Your task to perform on an android device: Open internet settings Image 0: 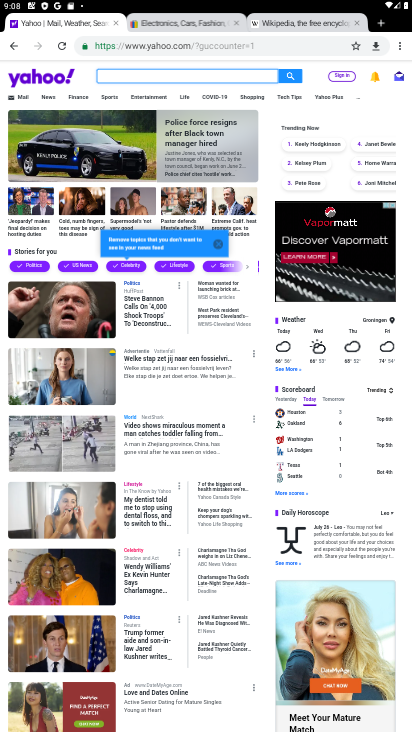
Step 0: press home button
Your task to perform on an android device: Open internet settings Image 1: 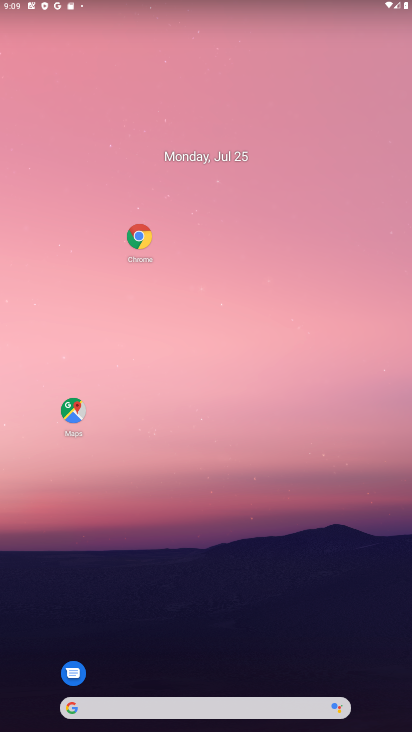
Step 1: drag from (291, 681) to (324, 105)
Your task to perform on an android device: Open internet settings Image 2: 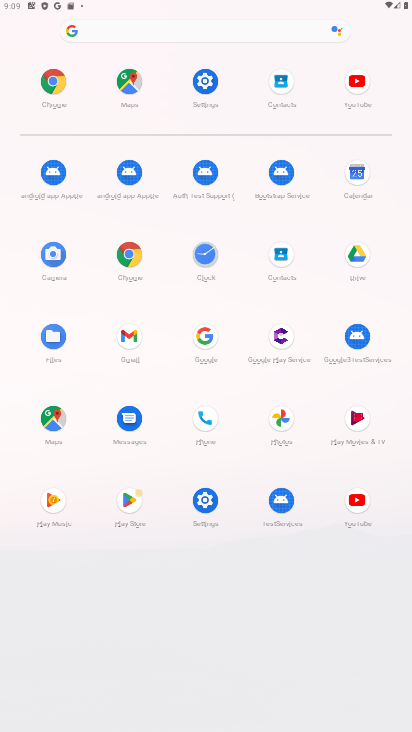
Step 2: click (207, 96)
Your task to perform on an android device: Open internet settings Image 3: 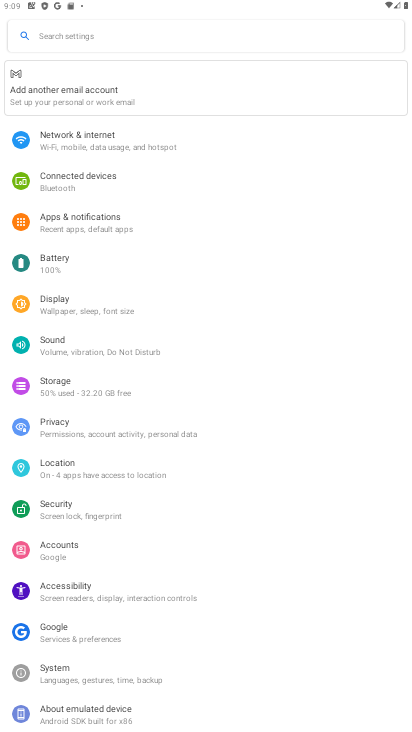
Step 3: task complete